Your task to perform on an android device: Go to accessibility settings Image 0: 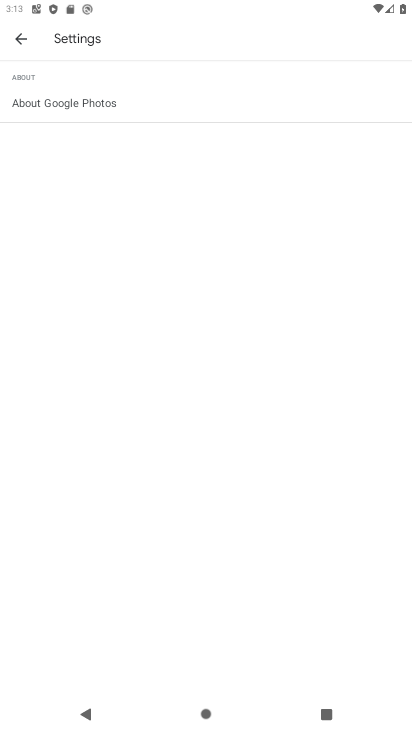
Step 0: press home button
Your task to perform on an android device: Go to accessibility settings Image 1: 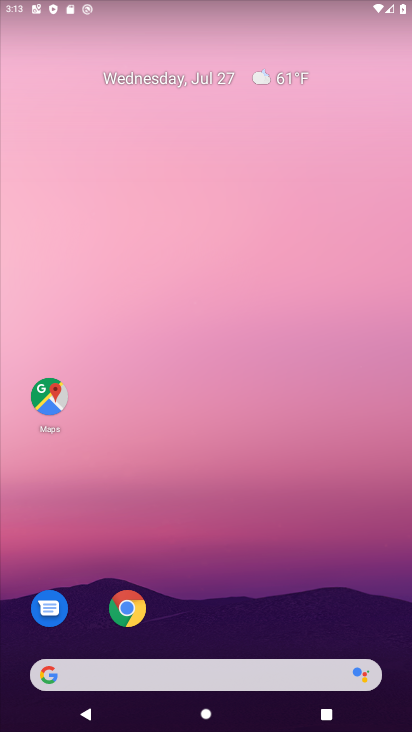
Step 1: drag from (314, 593) to (281, 225)
Your task to perform on an android device: Go to accessibility settings Image 2: 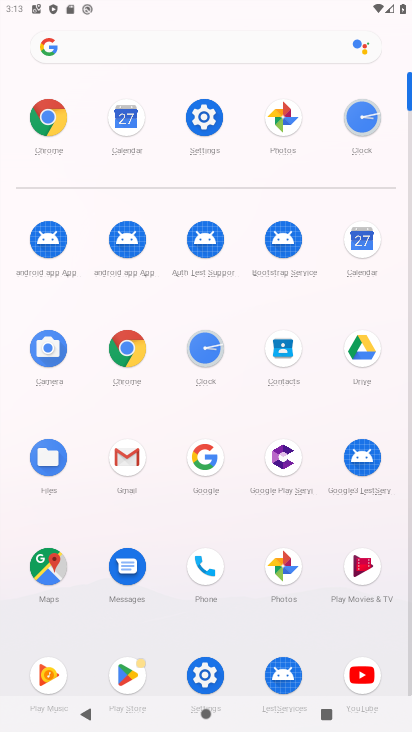
Step 2: click (201, 106)
Your task to perform on an android device: Go to accessibility settings Image 3: 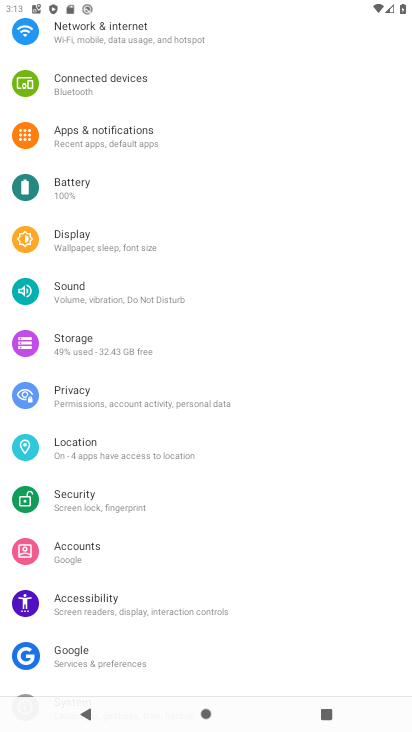
Step 3: click (160, 620)
Your task to perform on an android device: Go to accessibility settings Image 4: 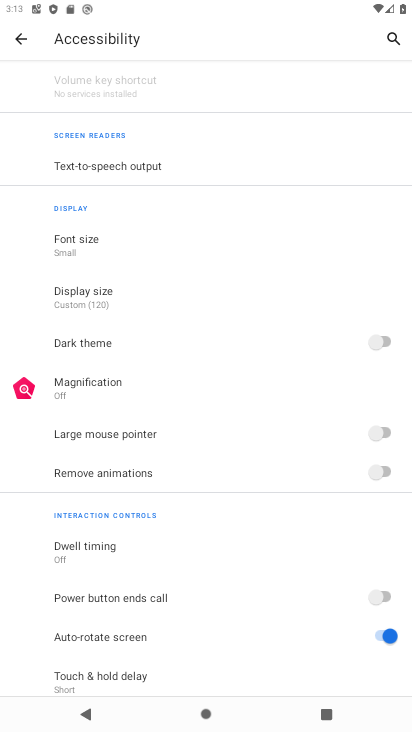
Step 4: task complete